Your task to perform on an android device: Open Google Image 0: 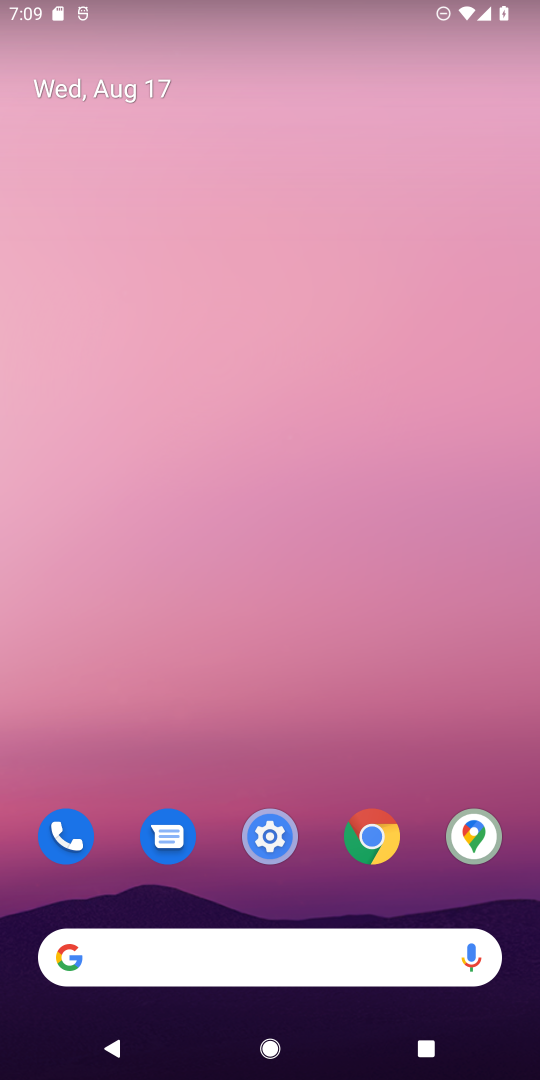
Step 0: drag from (197, 561) to (179, 113)
Your task to perform on an android device: Open Google Image 1: 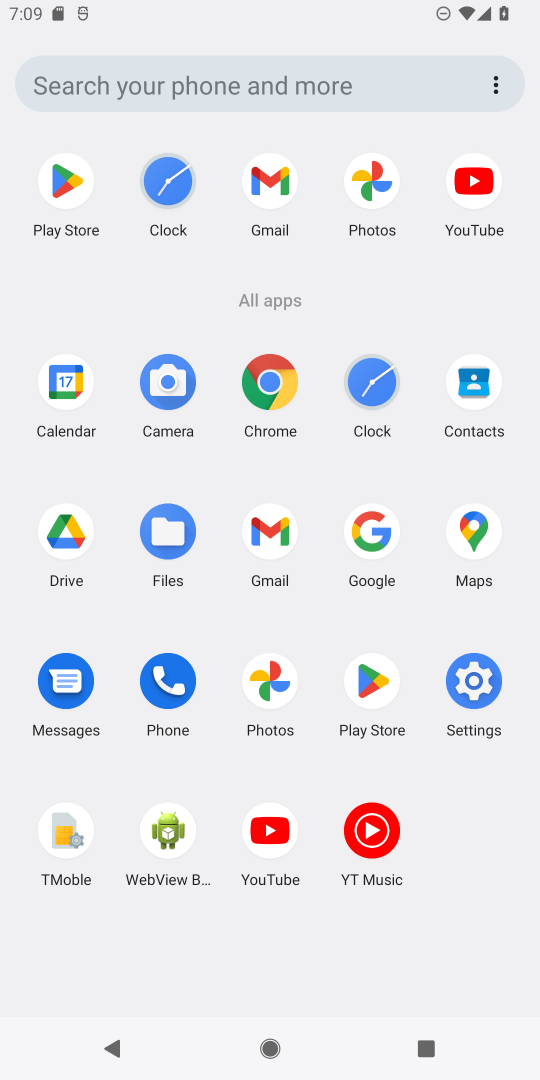
Step 1: click (365, 532)
Your task to perform on an android device: Open Google Image 2: 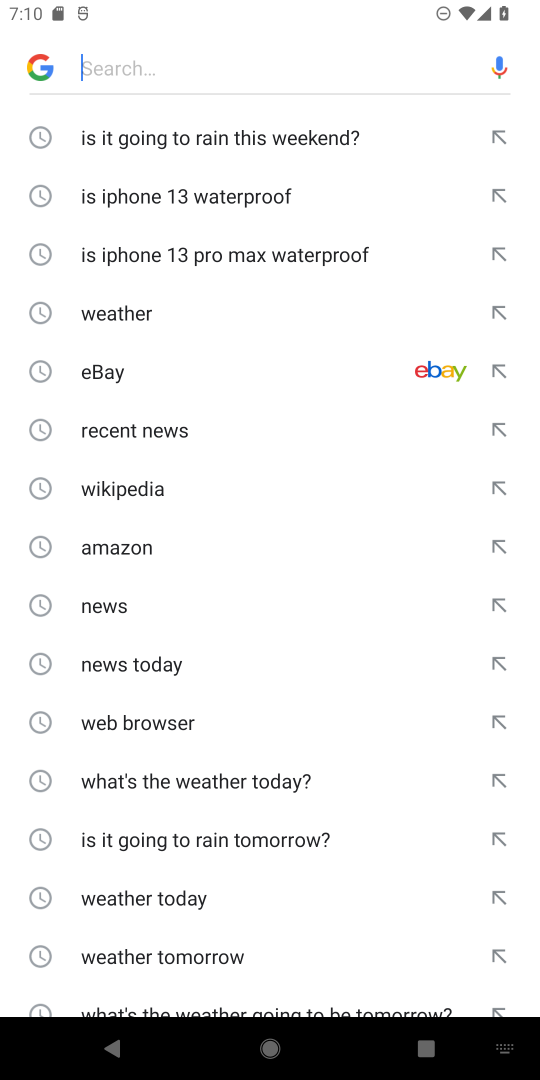
Step 2: task complete